Your task to perform on an android device: Do I have any events tomorrow? Image 0: 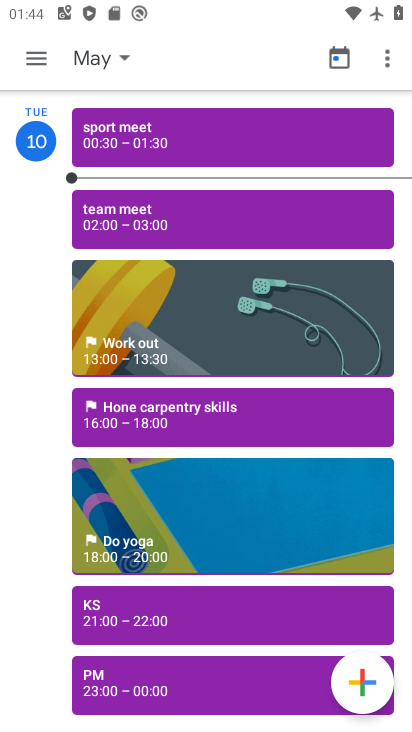
Step 0: drag from (195, 636) to (177, 242)
Your task to perform on an android device: Do I have any events tomorrow? Image 1: 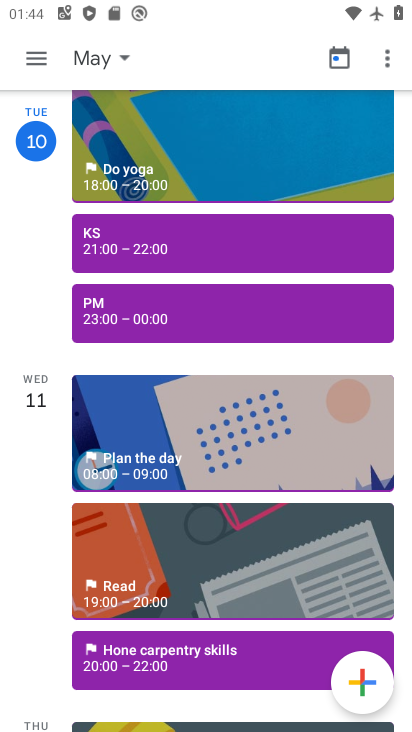
Step 1: press home button
Your task to perform on an android device: Do I have any events tomorrow? Image 2: 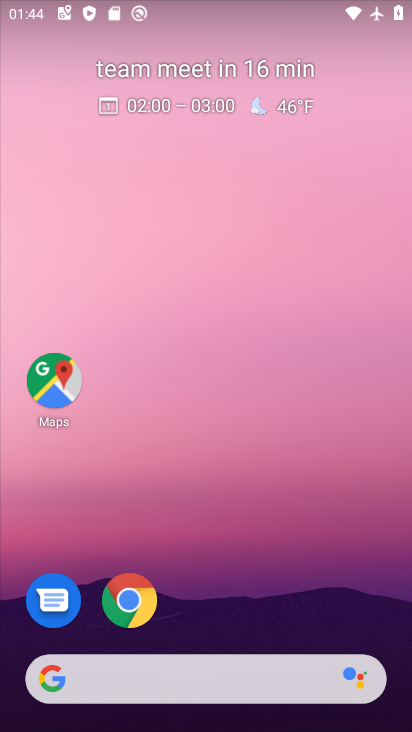
Step 2: drag from (204, 637) to (149, 57)
Your task to perform on an android device: Do I have any events tomorrow? Image 3: 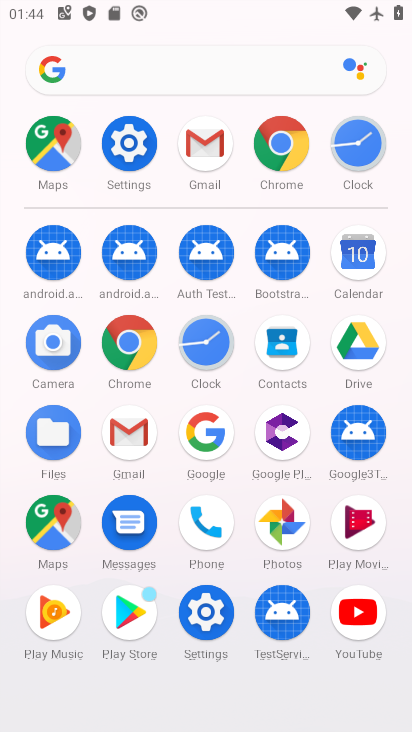
Step 3: click (371, 264)
Your task to perform on an android device: Do I have any events tomorrow? Image 4: 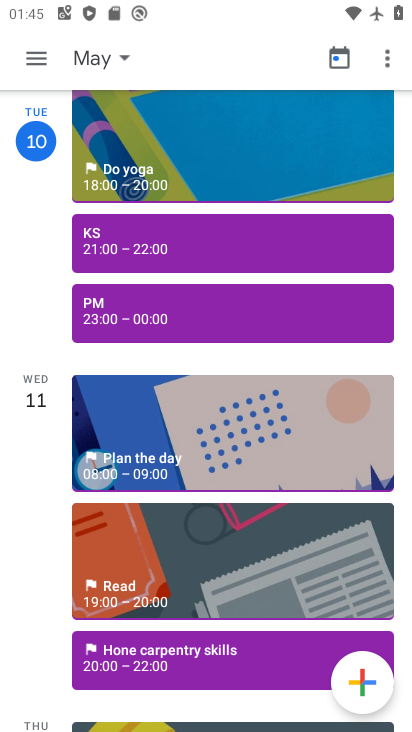
Step 4: click (40, 59)
Your task to perform on an android device: Do I have any events tomorrow? Image 5: 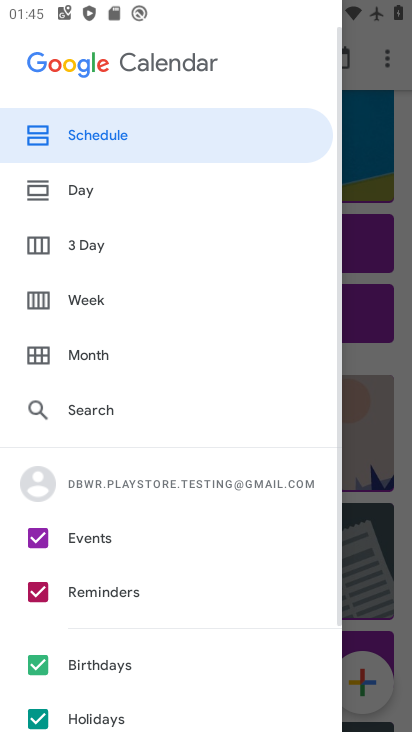
Step 5: click (73, 300)
Your task to perform on an android device: Do I have any events tomorrow? Image 6: 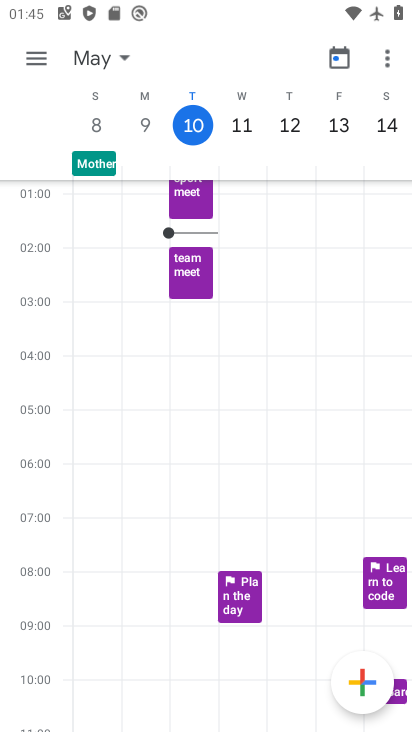
Step 6: click (237, 124)
Your task to perform on an android device: Do I have any events tomorrow? Image 7: 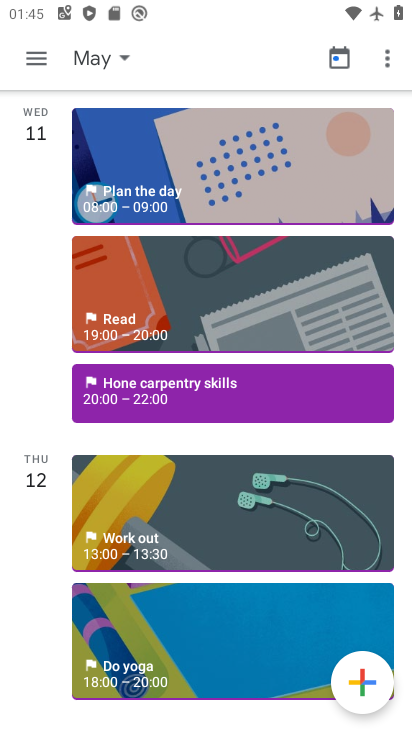
Step 7: task complete